Your task to perform on an android device: Open Google Chrome and click the shortcut for Amazon.com Image 0: 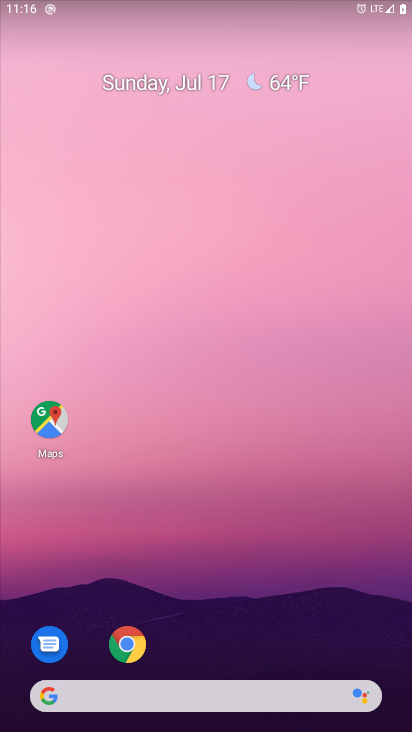
Step 0: press home button
Your task to perform on an android device: Open Google Chrome and click the shortcut for Amazon.com Image 1: 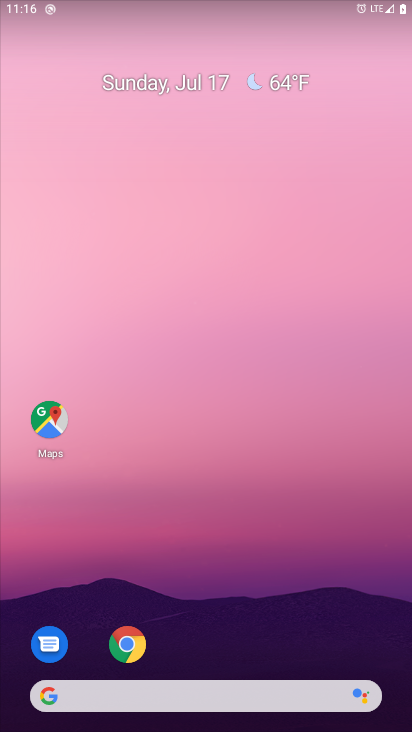
Step 1: drag from (257, 600) to (250, 92)
Your task to perform on an android device: Open Google Chrome and click the shortcut for Amazon.com Image 2: 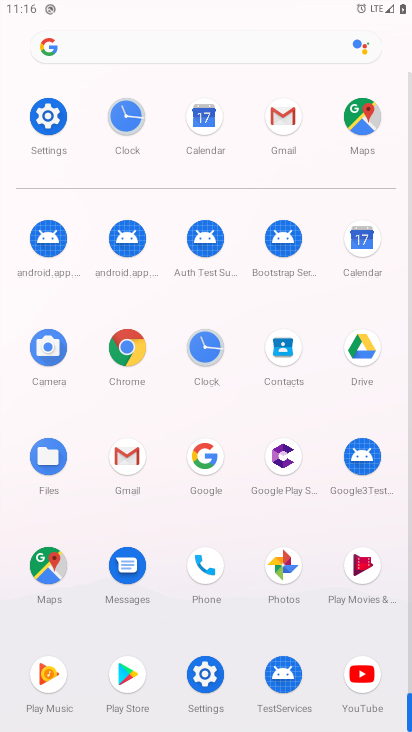
Step 2: click (124, 347)
Your task to perform on an android device: Open Google Chrome and click the shortcut for Amazon.com Image 3: 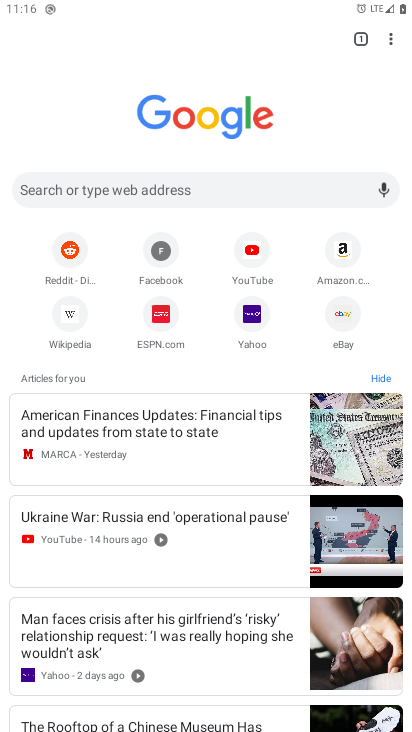
Step 3: click (340, 238)
Your task to perform on an android device: Open Google Chrome and click the shortcut for Amazon.com Image 4: 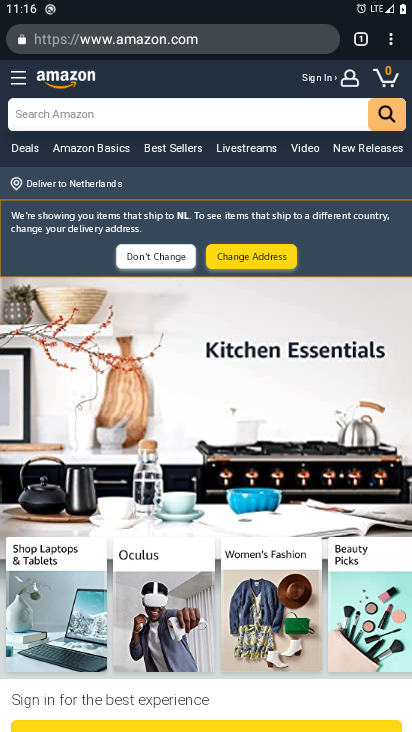
Step 4: task complete